Your task to perform on an android device: turn on showing notifications on the lock screen Image 0: 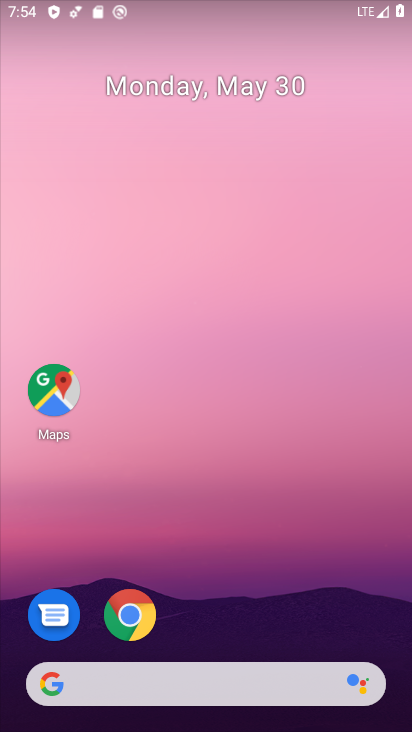
Step 0: drag from (114, 722) to (130, 141)
Your task to perform on an android device: turn on showing notifications on the lock screen Image 1: 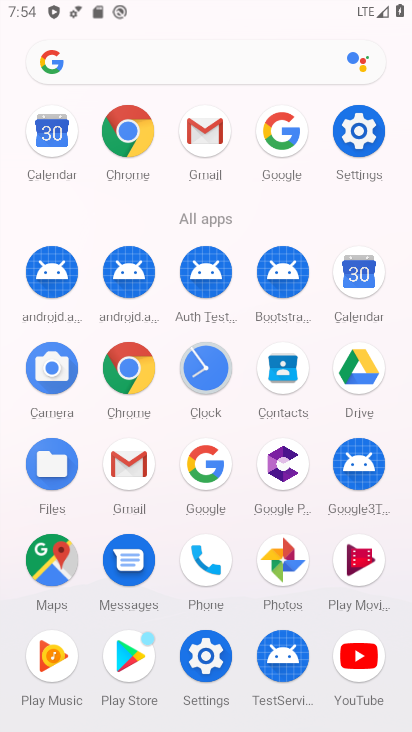
Step 1: click (369, 133)
Your task to perform on an android device: turn on showing notifications on the lock screen Image 2: 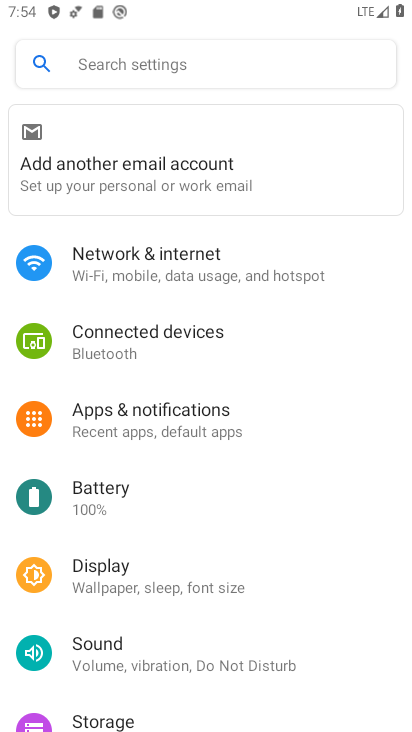
Step 2: click (207, 416)
Your task to perform on an android device: turn on showing notifications on the lock screen Image 3: 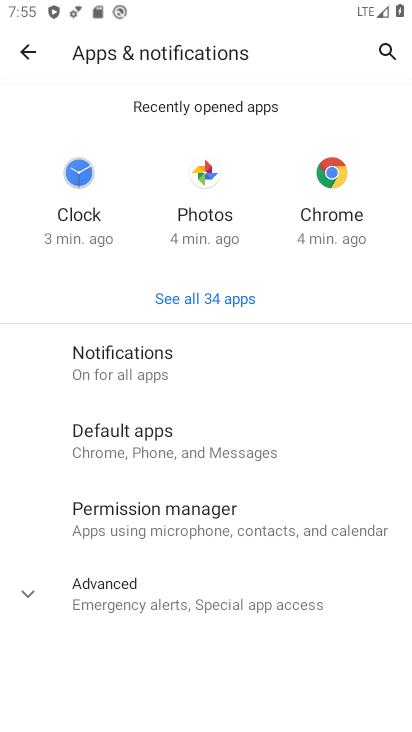
Step 3: click (227, 366)
Your task to perform on an android device: turn on showing notifications on the lock screen Image 4: 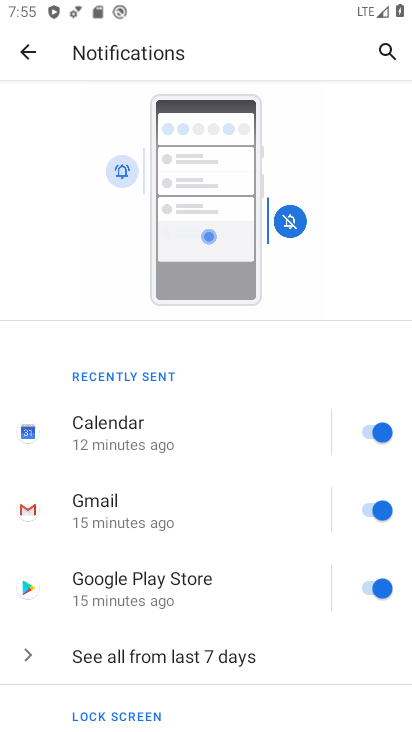
Step 4: drag from (166, 627) to (136, 299)
Your task to perform on an android device: turn on showing notifications on the lock screen Image 5: 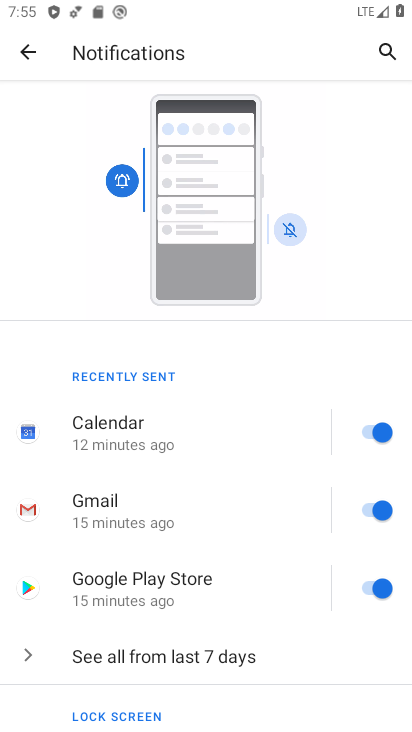
Step 5: click (153, 718)
Your task to perform on an android device: turn on showing notifications on the lock screen Image 6: 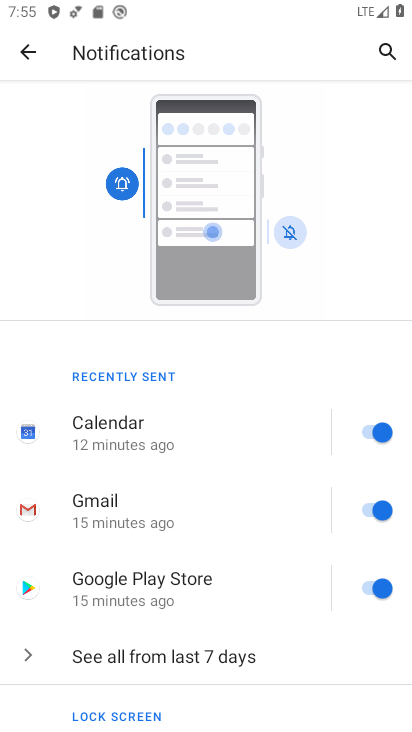
Step 6: drag from (146, 695) to (160, 303)
Your task to perform on an android device: turn on showing notifications on the lock screen Image 7: 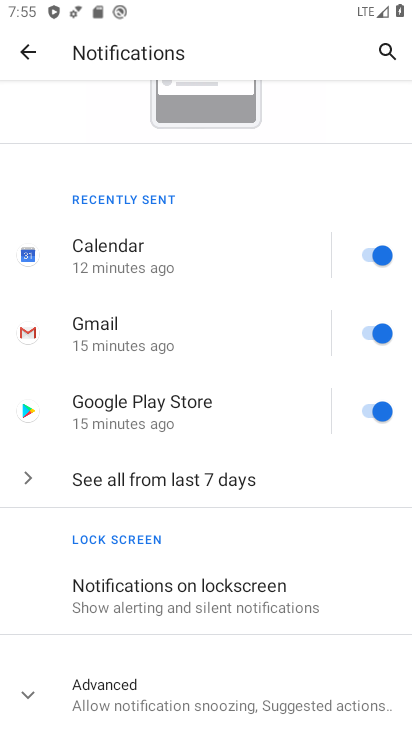
Step 7: click (251, 596)
Your task to perform on an android device: turn on showing notifications on the lock screen Image 8: 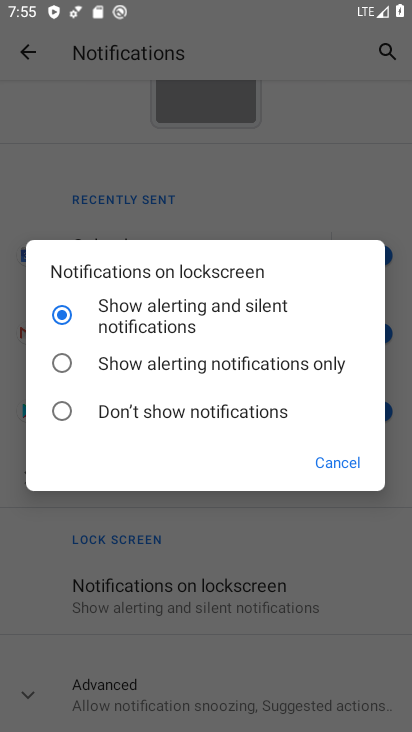
Step 8: task complete